Your task to perform on an android device: Open Google Chrome Image 0: 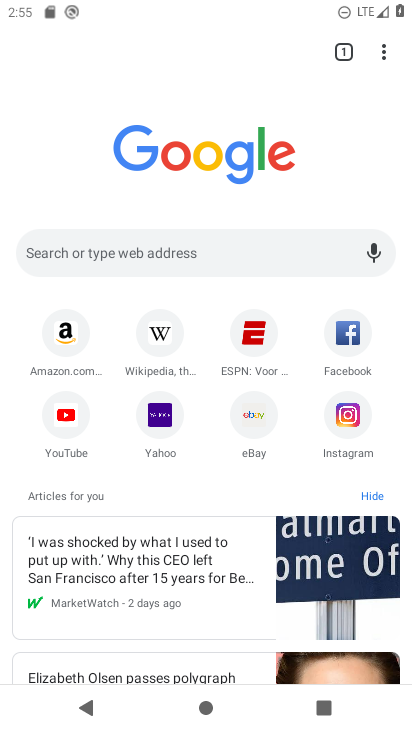
Step 0: task complete